Your task to perform on an android device: turn vacation reply on in the gmail app Image 0: 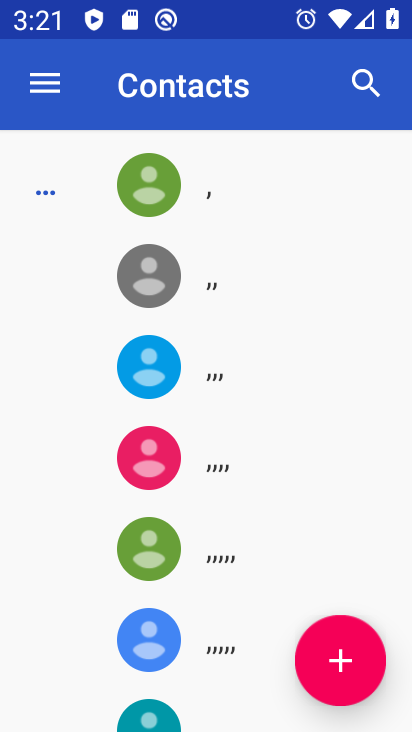
Step 0: press home button
Your task to perform on an android device: turn vacation reply on in the gmail app Image 1: 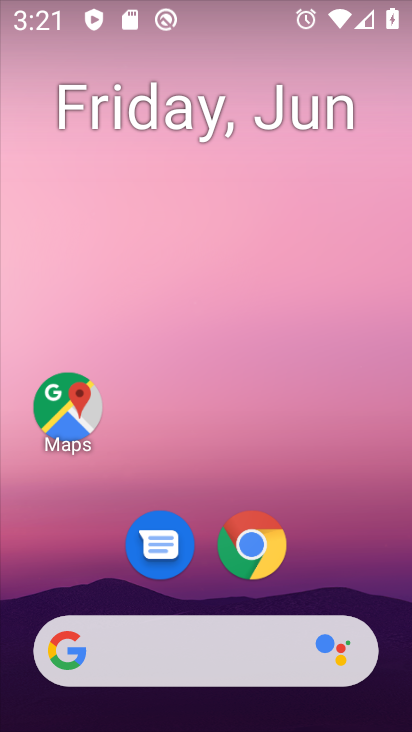
Step 1: drag from (362, 567) to (351, 2)
Your task to perform on an android device: turn vacation reply on in the gmail app Image 2: 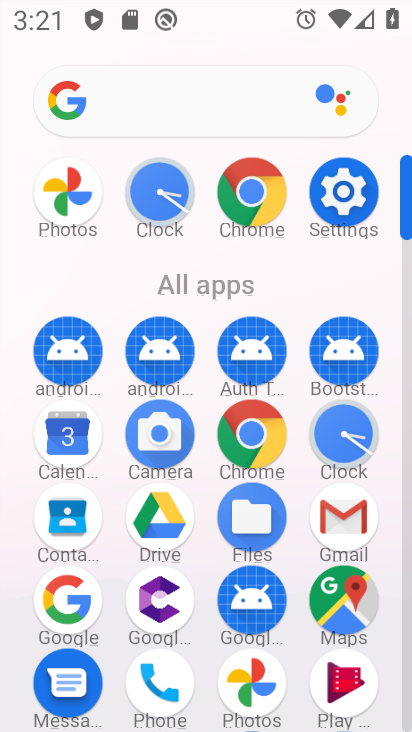
Step 2: click (326, 512)
Your task to perform on an android device: turn vacation reply on in the gmail app Image 3: 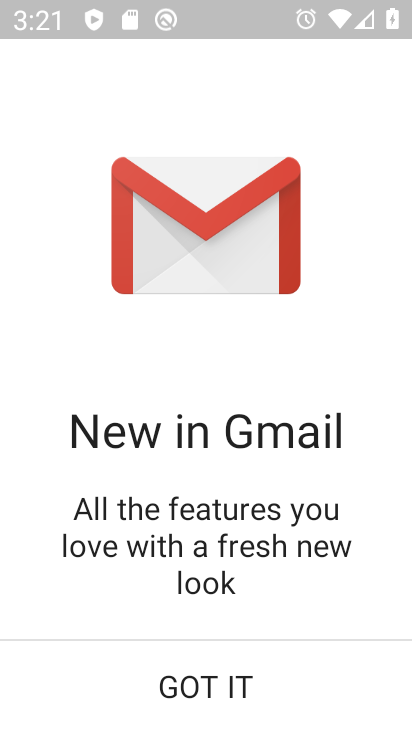
Step 3: click (186, 671)
Your task to perform on an android device: turn vacation reply on in the gmail app Image 4: 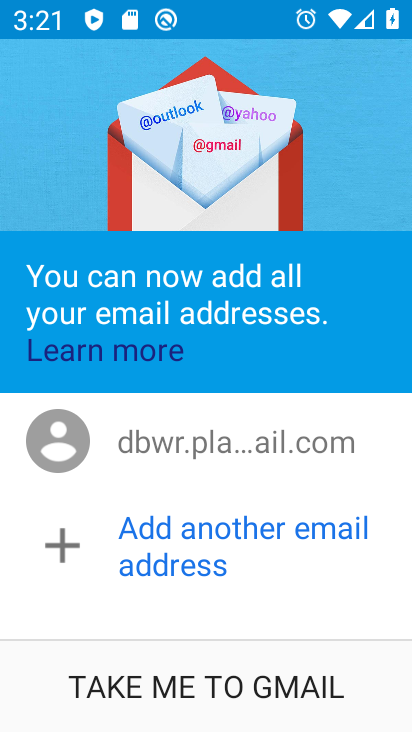
Step 4: click (180, 671)
Your task to perform on an android device: turn vacation reply on in the gmail app Image 5: 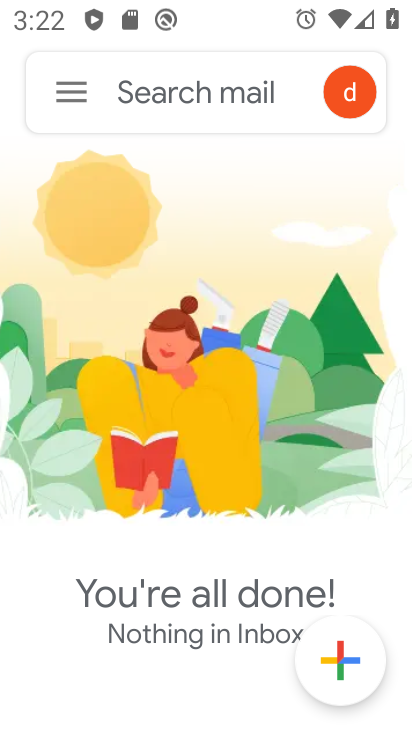
Step 5: click (72, 86)
Your task to perform on an android device: turn vacation reply on in the gmail app Image 6: 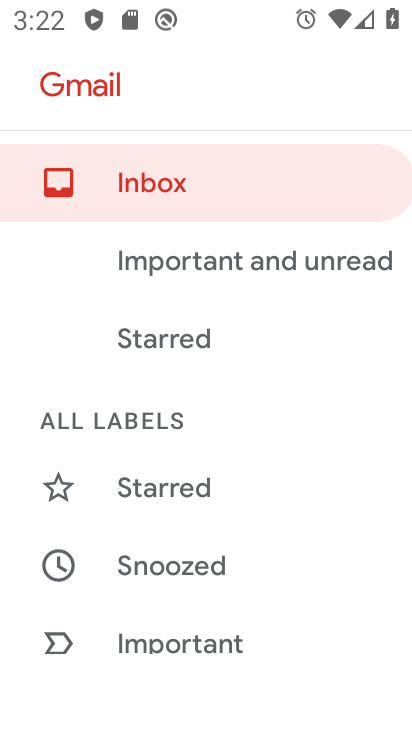
Step 6: drag from (183, 579) to (228, 146)
Your task to perform on an android device: turn vacation reply on in the gmail app Image 7: 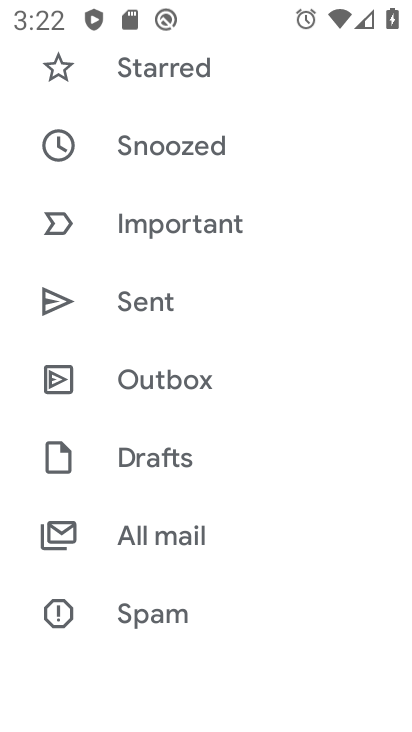
Step 7: drag from (152, 574) to (216, 54)
Your task to perform on an android device: turn vacation reply on in the gmail app Image 8: 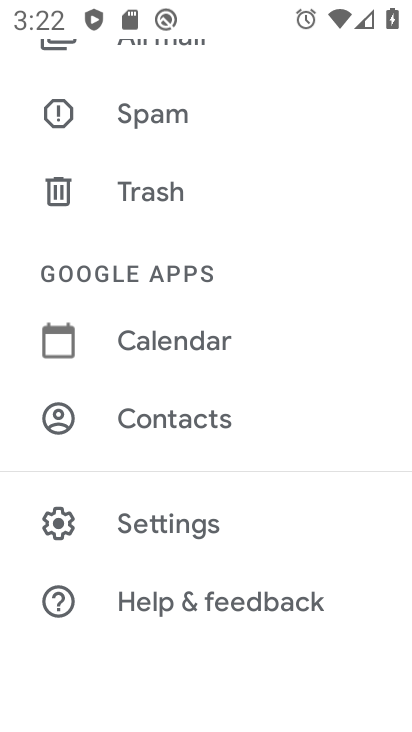
Step 8: click (171, 531)
Your task to perform on an android device: turn vacation reply on in the gmail app Image 9: 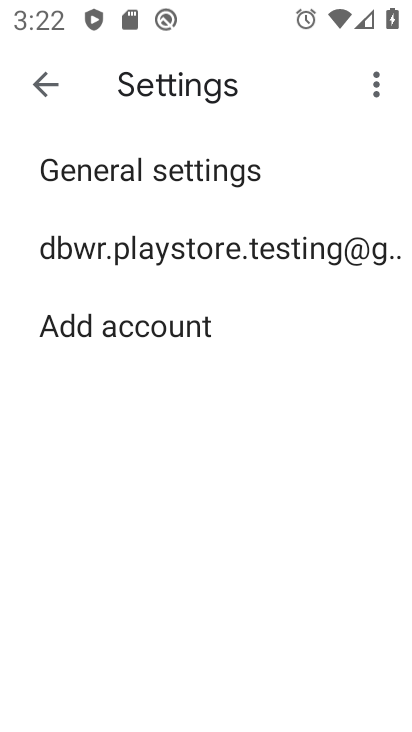
Step 9: click (239, 259)
Your task to perform on an android device: turn vacation reply on in the gmail app Image 10: 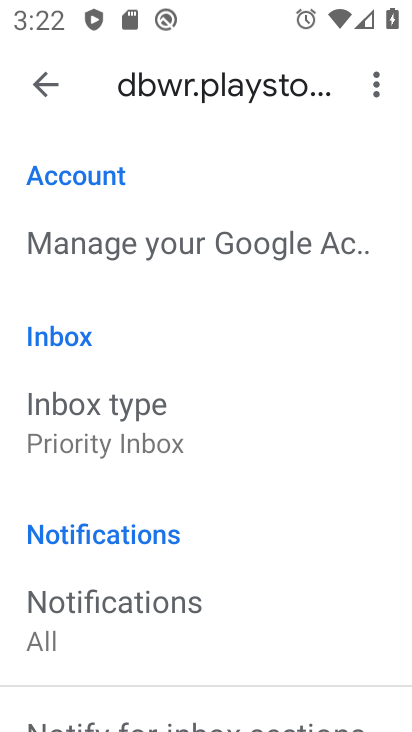
Step 10: drag from (201, 630) to (232, 105)
Your task to perform on an android device: turn vacation reply on in the gmail app Image 11: 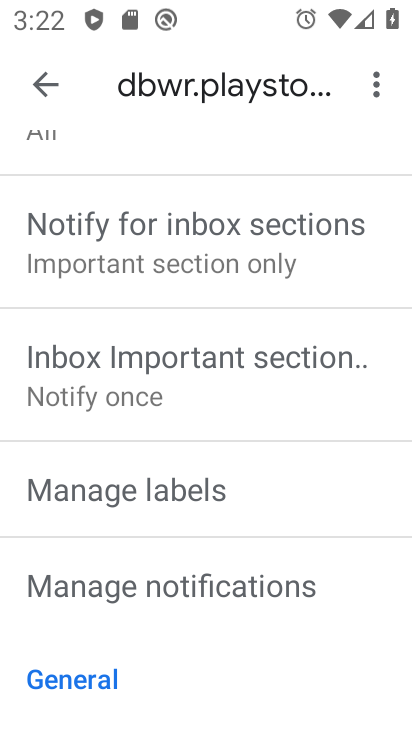
Step 11: drag from (138, 660) to (140, 159)
Your task to perform on an android device: turn vacation reply on in the gmail app Image 12: 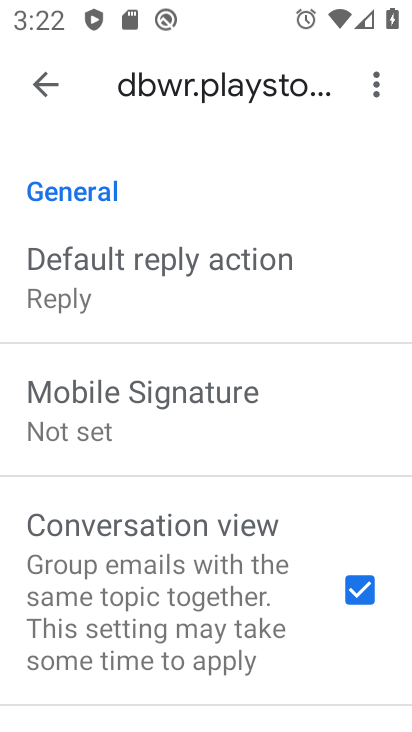
Step 12: drag from (90, 659) to (92, 217)
Your task to perform on an android device: turn vacation reply on in the gmail app Image 13: 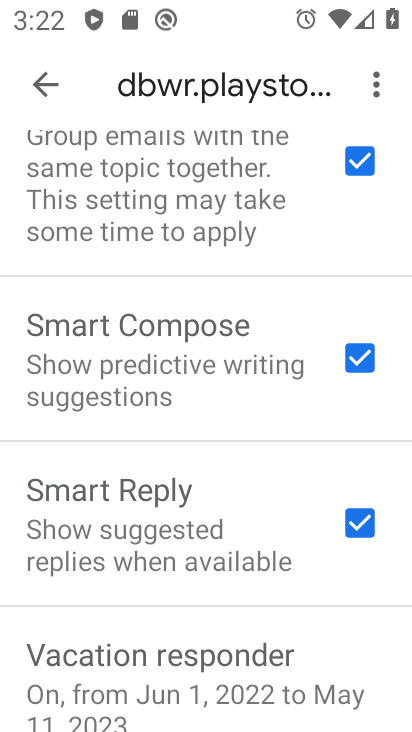
Step 13: click (163, 660)
Your task to perform on an android device: turn vacation reply on in the gmail app Image 14: 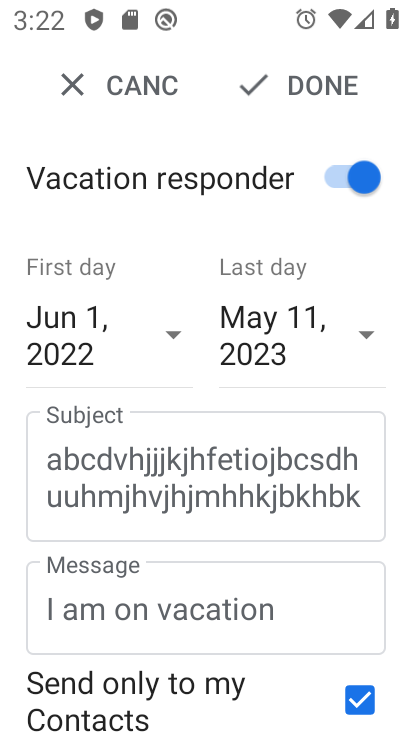
Step 14: click (326, 70)
Your task to perform on an android device: turn vacation reply on in the gmail app Image 15: 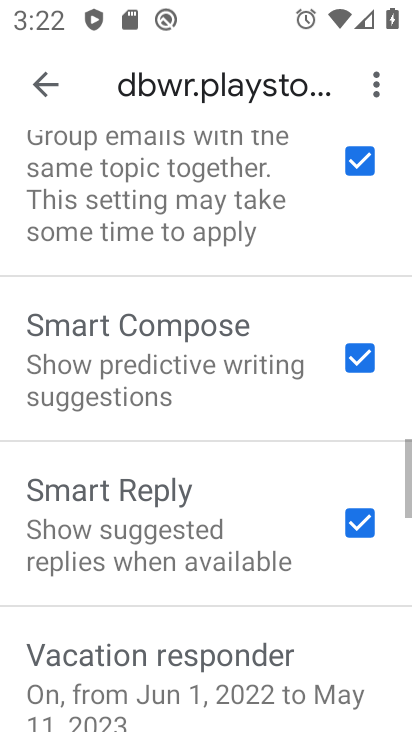
Step 15: task complete